Your task to perform on an android device: read, delete, or share a saved page in the chrome app Image 0: 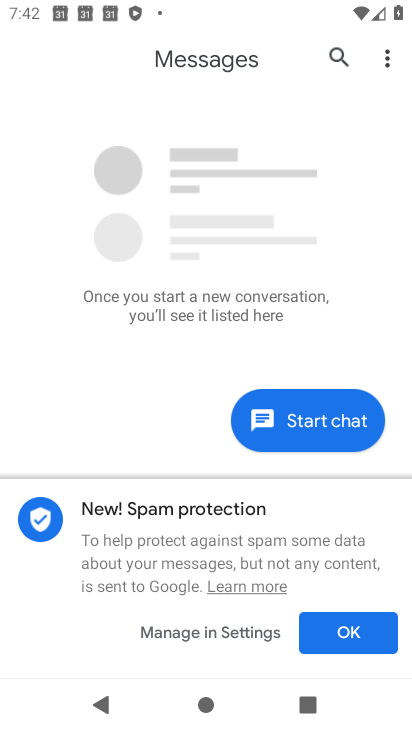
Step 0: press home button
Your task to perform on an android device: read, delete, or share a saved page in the chrome app Image 1: 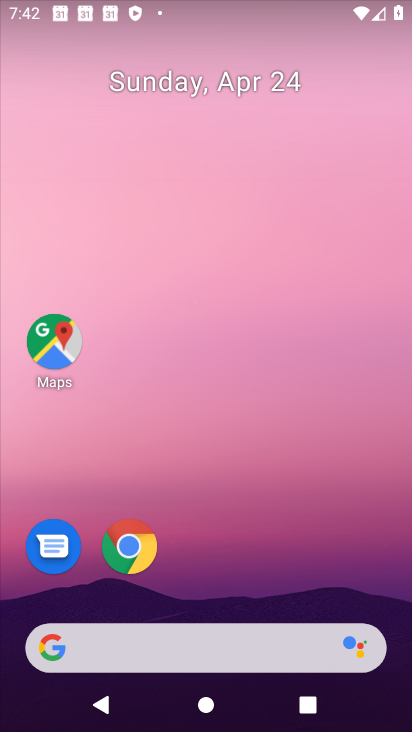
Step 1: click (114, 568)
Your task to perform on an android device: read, delete, or share a saved page in the chrome app Image 2: 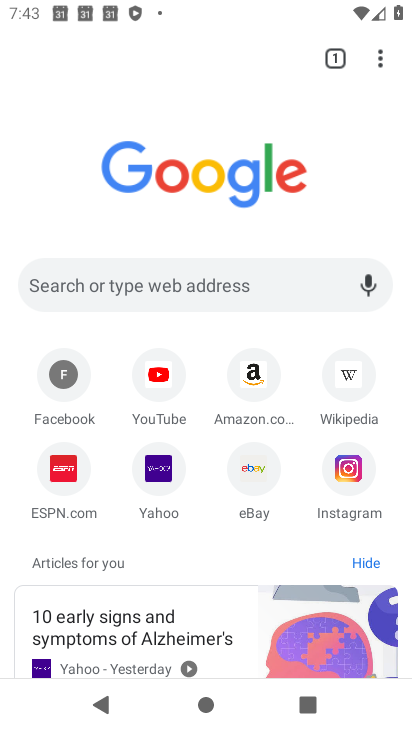
Step 2: click (384, 50)
Your task to perform on an android device: read, delete, or share a saved page in the chrome app Image 3: 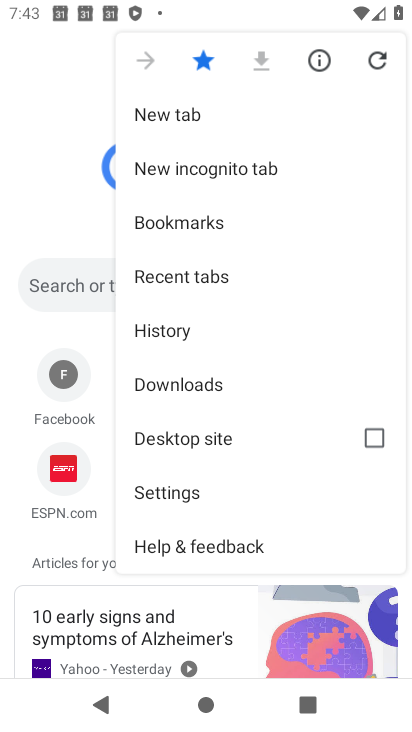
Step 3: click (223, 382)
Your task to perform on an android device: read, delete, or share a saved page in the chrome app Image 4: 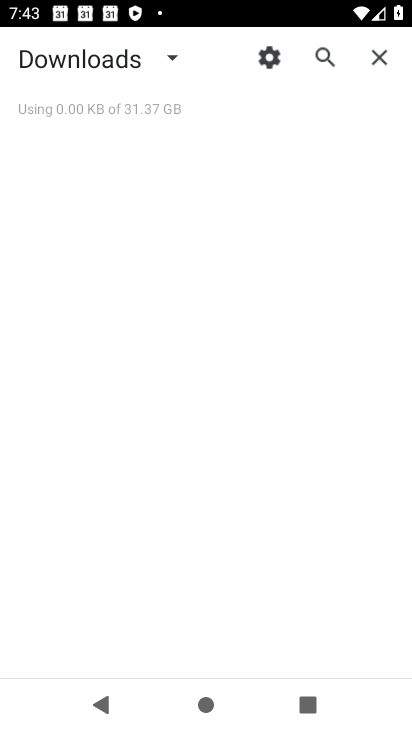
Step 4: task complete